Your task to perform on an android device: Open Google Chrome Image 0: 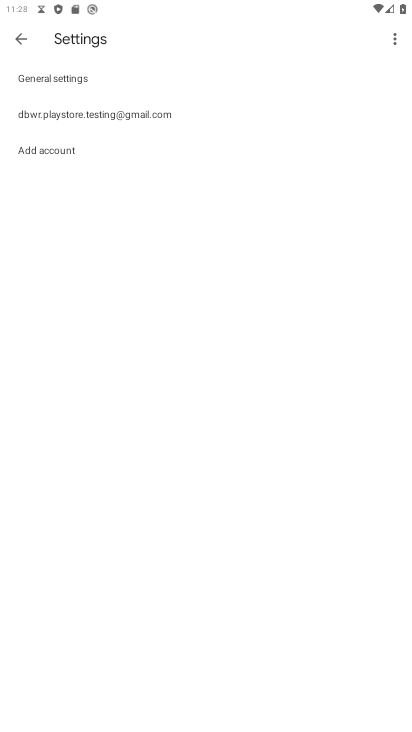
Step 0: press home button
Your task to perform on an android device: Open Google Chrome Image 1: 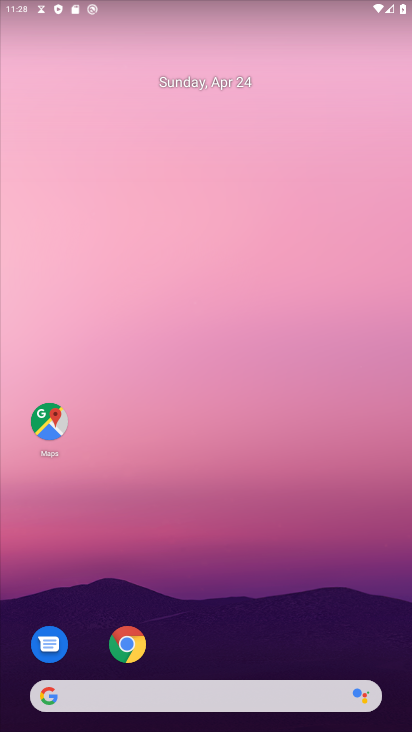
Step 1: click (131, 650)
Your task to perform on an android device: Open Google Chrome Image 2: 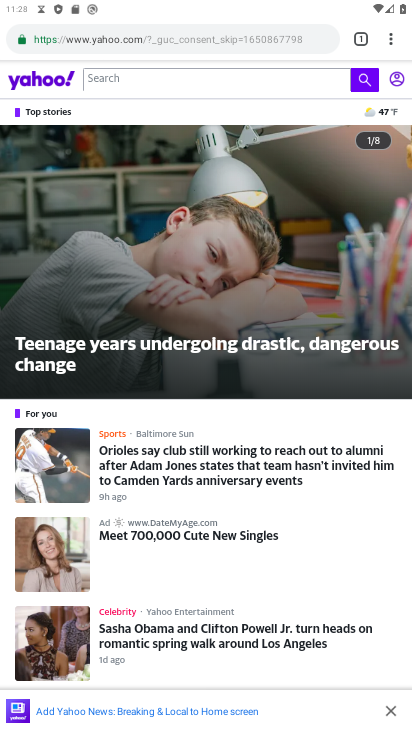
Step 2: task complete